Your task to perform on an android device: see tabs open on other devices in the chrome app Image 0: 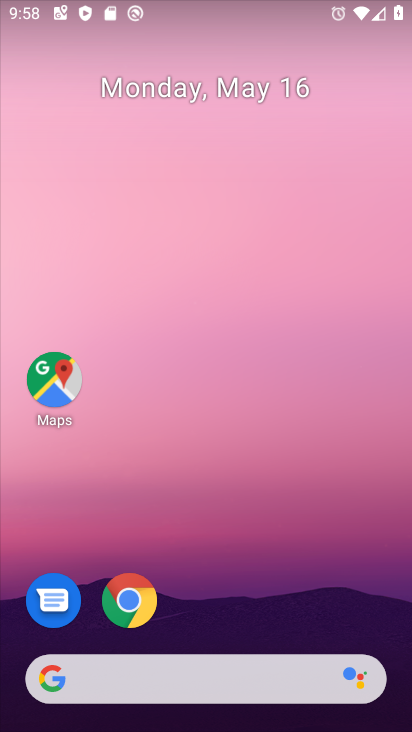
Step 0: drag from (184, 626) to (298, 142)
Your task to perform on an android device: see tabs open on other devices in the chrome app Image 1: 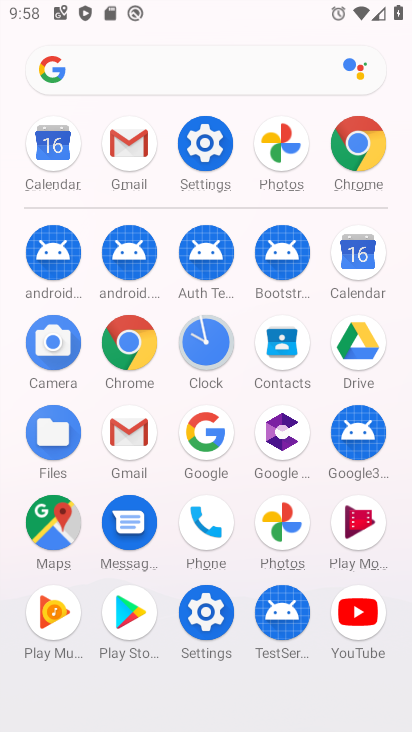
Step 1: click (358, 135)
Your task to perform on an android device: see tabs open on other devices in the chrome app Image 2: 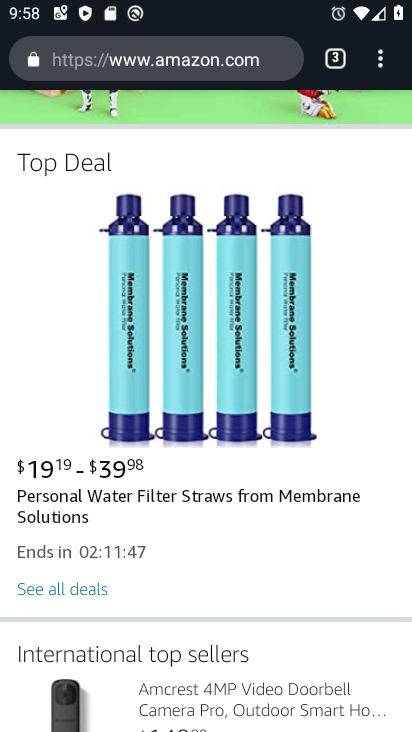
Step 2: click (371, 58)
Your task to perform on an android device: see tabs open on other devices in the chrome app Image 3: 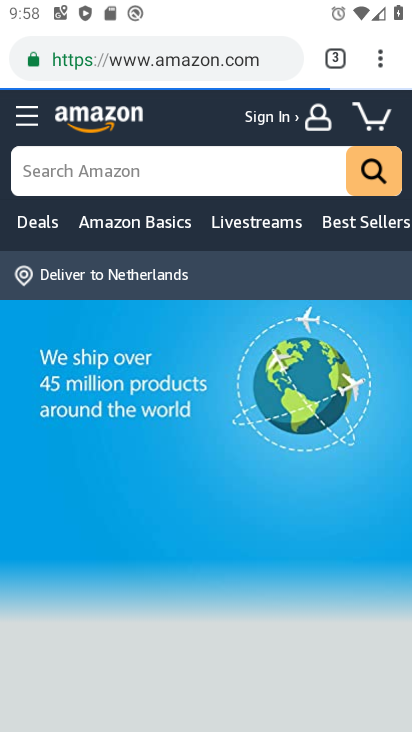
Step 3: click (382, 53)
Your task to perform on an android device: see tabs open on other devices in the chrome app Image 4: 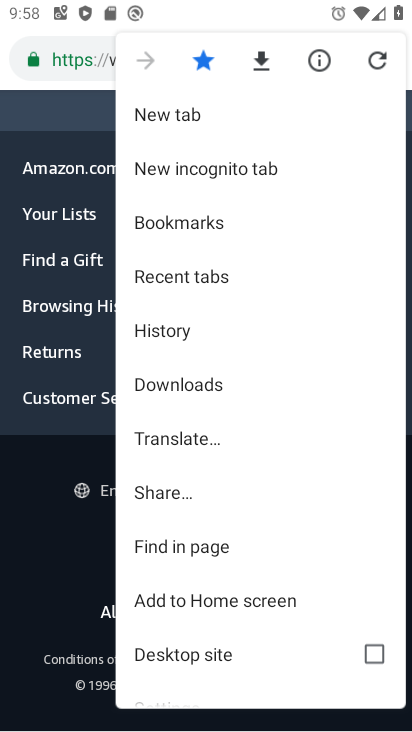
Step 4: click (189, 271)
Your task to perform on an android device: see tabs open on other devices in the chrome app Image 5: 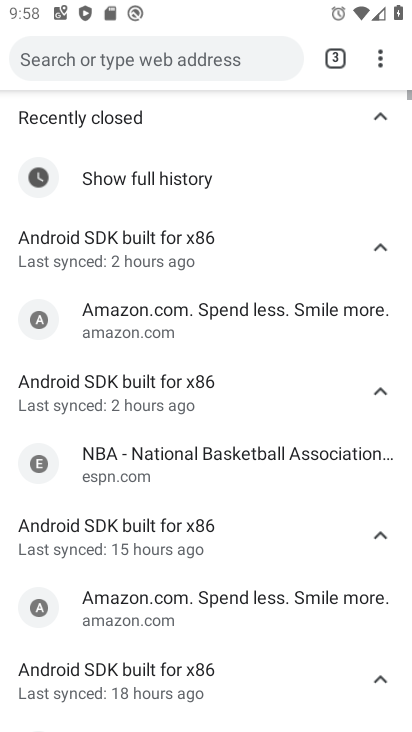
Step 5: task complete